Your task to perform on an android device: turn off improve location accuracy Image 0: 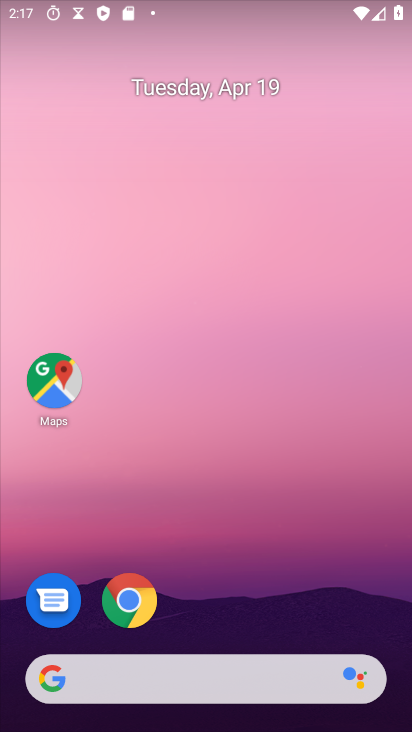
Step 0: drag from (285, 722) to (339, 284)
Your task to perform on an android device: turn off improve location accuracy Image 1: 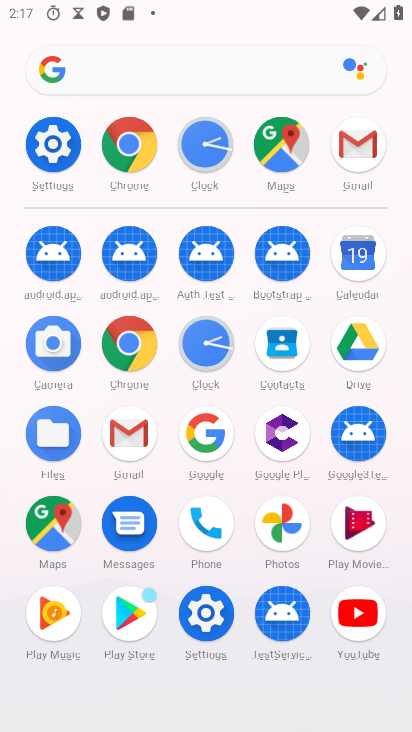
Step 1: click (215, 598)
Your task to perform on an android device: turn off improve location accuracy Image 2: 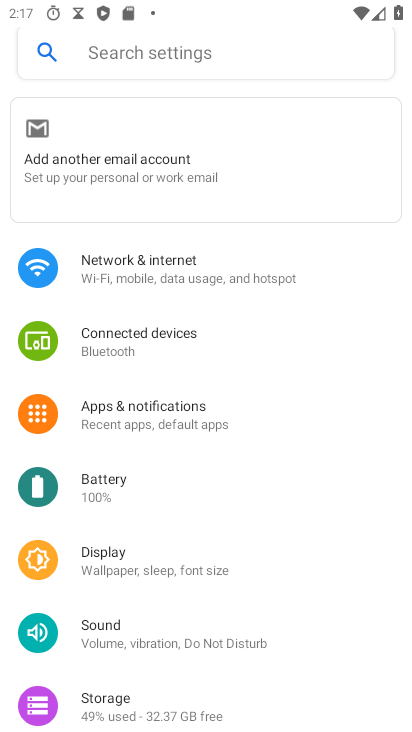
Step 2: click (187, 53)
Your task to perform on an android device: turn off improve location accuracy Image 3: 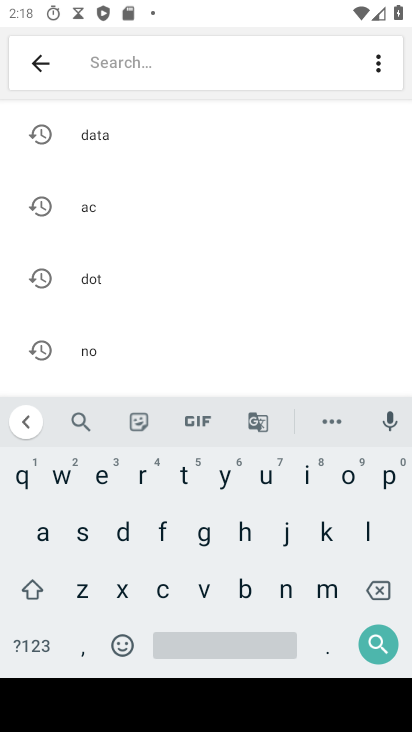
Step 3: drag from (254, 346) to (289, 155)
Your task to perform on an android device: turn off improve location accuracy Image 4: 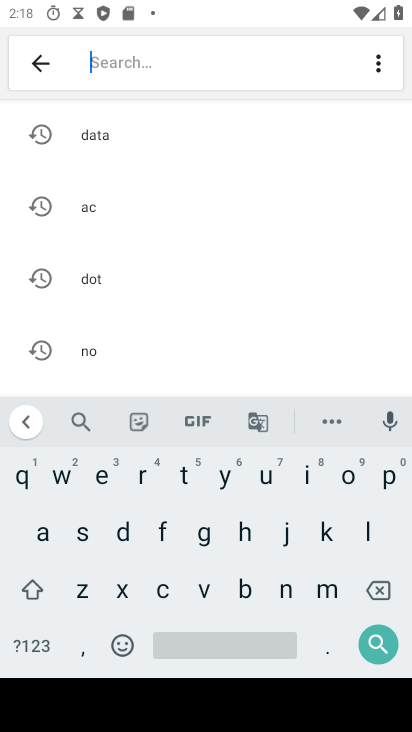
Step 4: press back button
Your task to perform on an android device: turn off improve location accuracy Image 5: 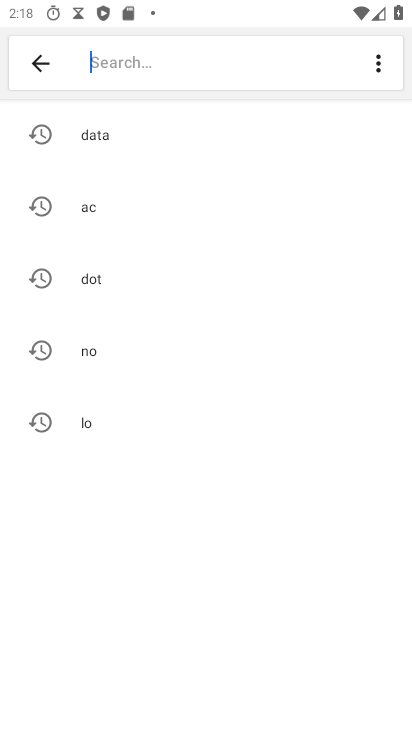
Step 5: click (132, 424)
Your task to perform on an android device: turn off improve location accuracy Image 6: 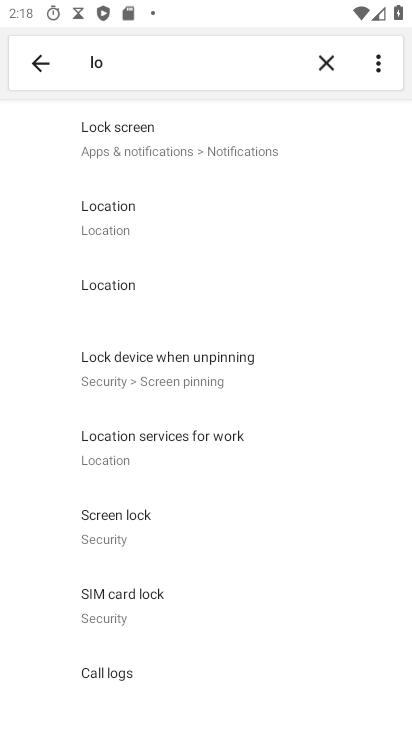
Step 6: click (148, 217)
Your task to perform on an android device: turn off improve location accuracy Image 7: 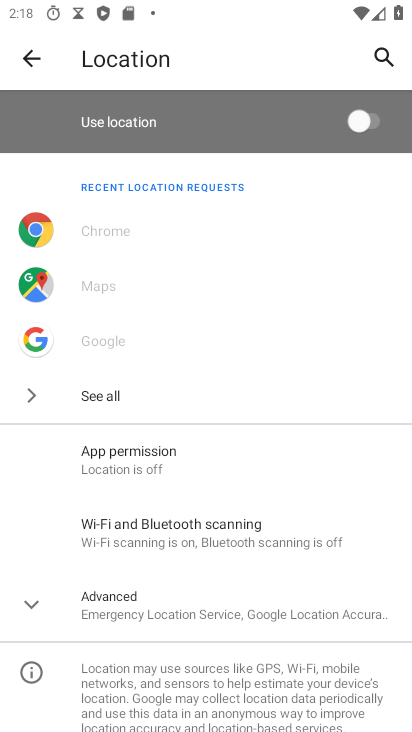
Step 7: click (18, 615)
Your task to perform on an android device: turn off improve location accuracy Image 8: 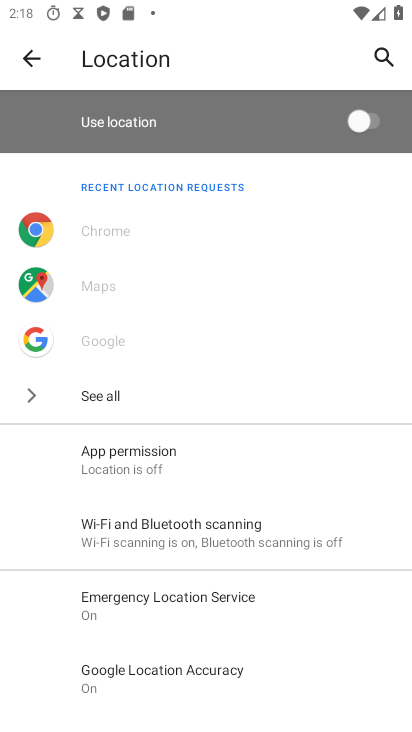
Step 8: click (186, 672)
Your task to perform on an android device: turn off improve location accuracy Image 9: 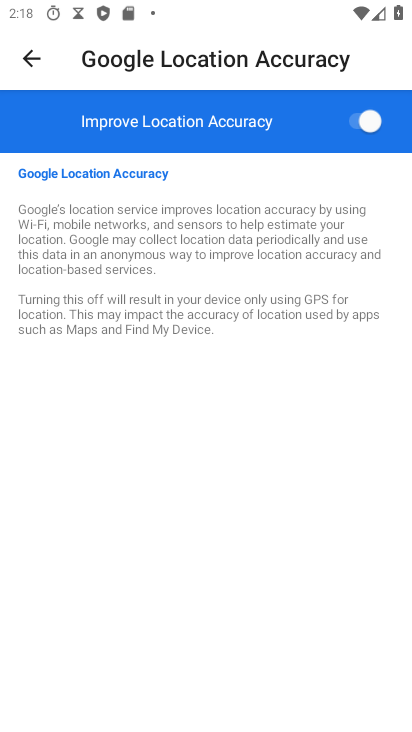
Step 9: click (367, 130)
Your task to perform on an android device: turn off improve location accuracy Image 10: 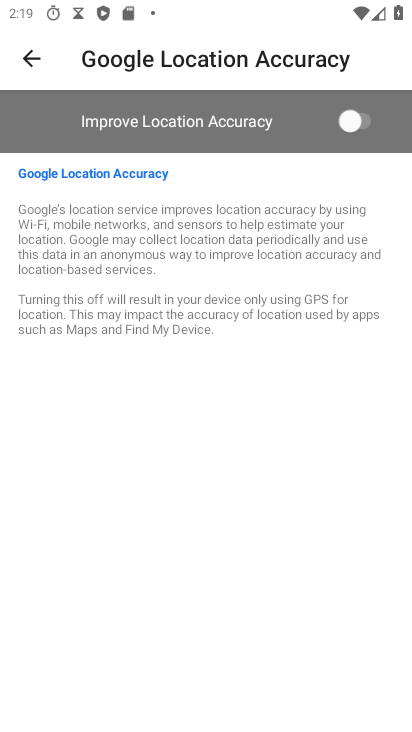
Step 10: task complete